Your task to perform on an android device: Is it going to rain this weekend? Image 0: 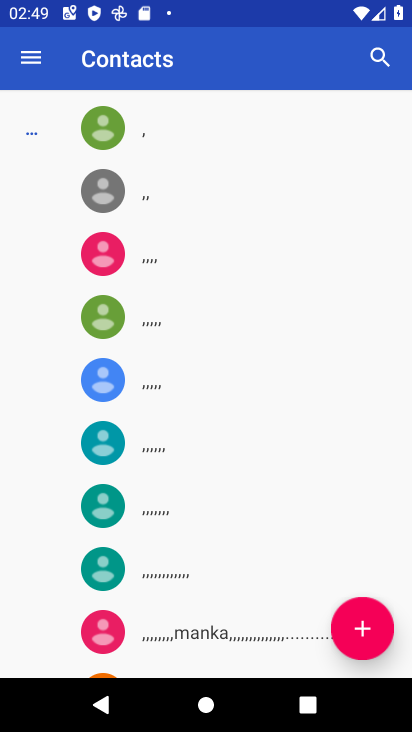
Step 0: press home button
Your task to perform on an android device: Is it going to rain this weekend? Image 1: 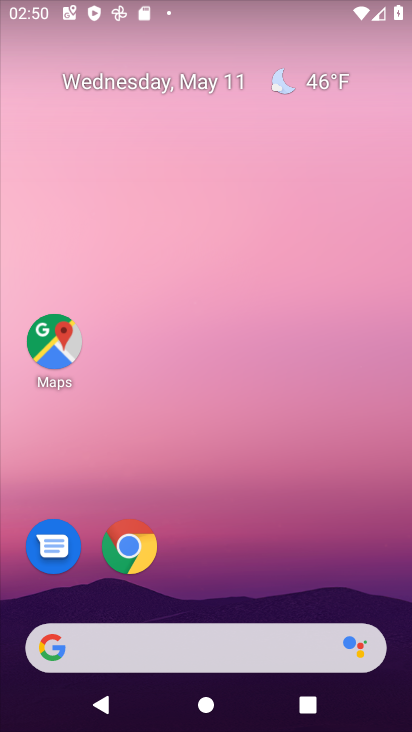
Step 1: drag from (202, 569) to (238, 259)
Your task to perform on an android device: Is it going to rain this weekend? Image 2: 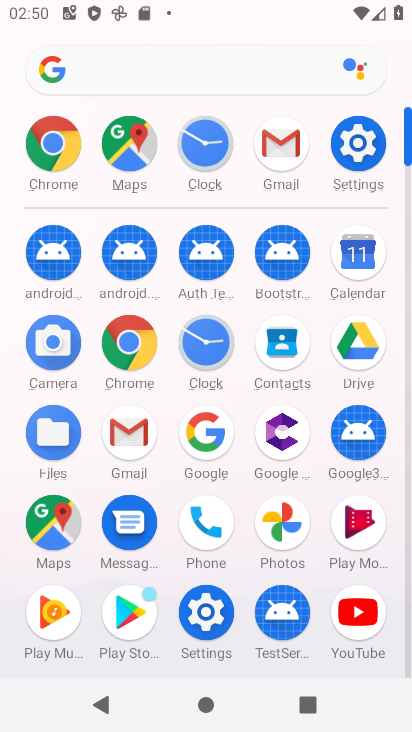
Step 2: click (237, 66)
Your task to perform on an android device: Is it going to rain this weekend? Image 3: 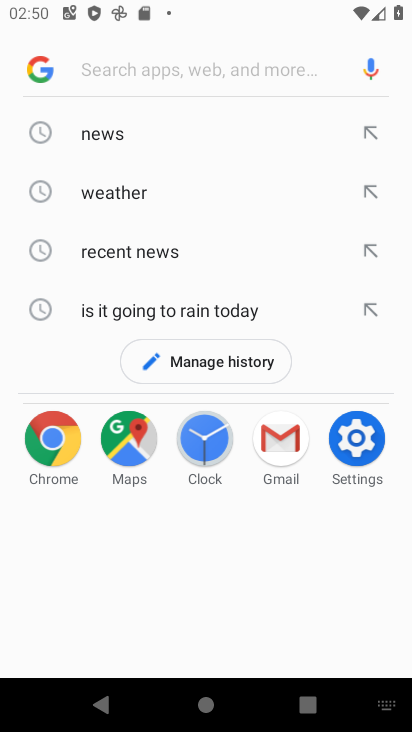
Step 3: type "rain weekend"
Your task to perform on an android device: Is it going to rain this weekend? Image 4: 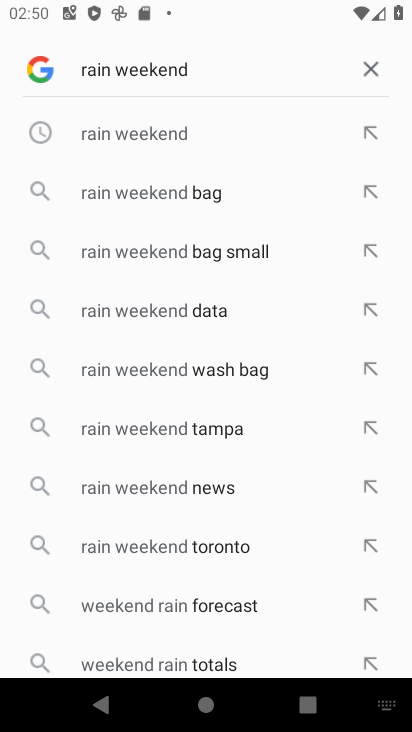
Step 4: click (151, 144)
Your task to perform on an android device: Is it going to rain this weekend? Image 5: 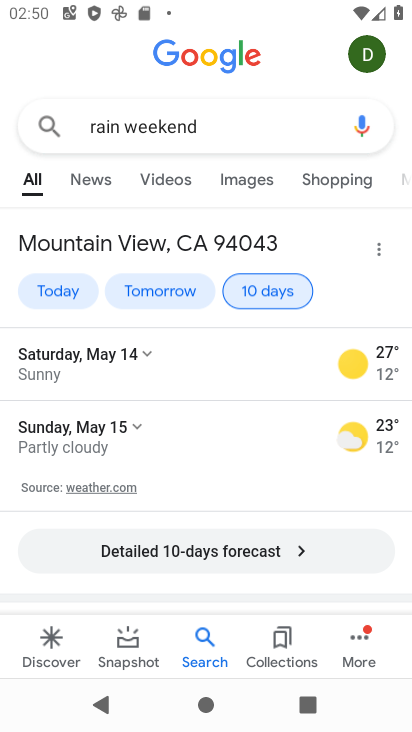
Step 5: task complete